Your task to perform on an android device: delete the emails in spam in the gmail app Image 0: 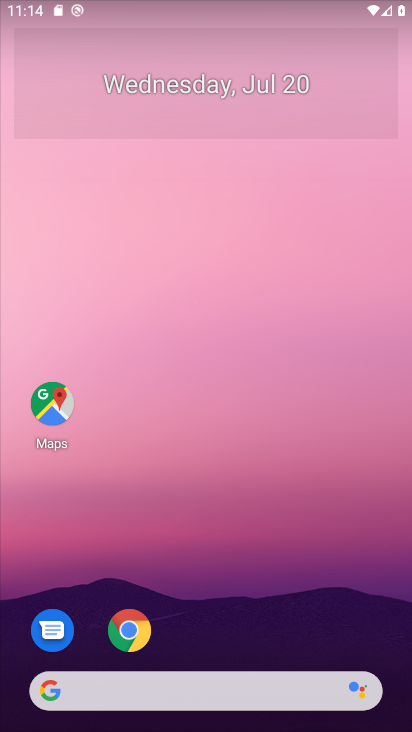
Step 0: drag from (238, 557) to (232, 289)
Your task to perform on an android device: delete the emails in spam in the gmail app Image 1: 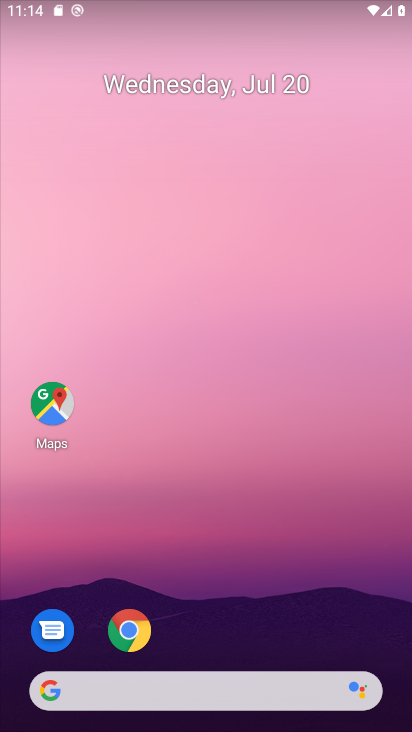
Step 1: drag from (269, 620) to (229, 261)
Your task to perform on an android device: delete the emails in spam in the gmail app Image 2: 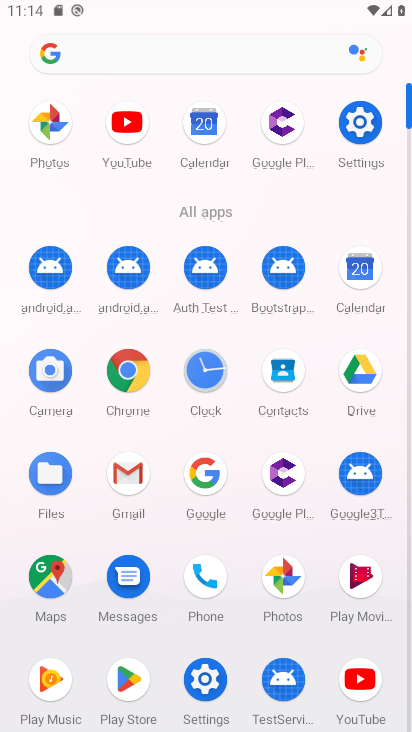
Step 2: click (126, 475)
Your task to perform on an android device: delete the emails in spam in the gmail app Image 3: 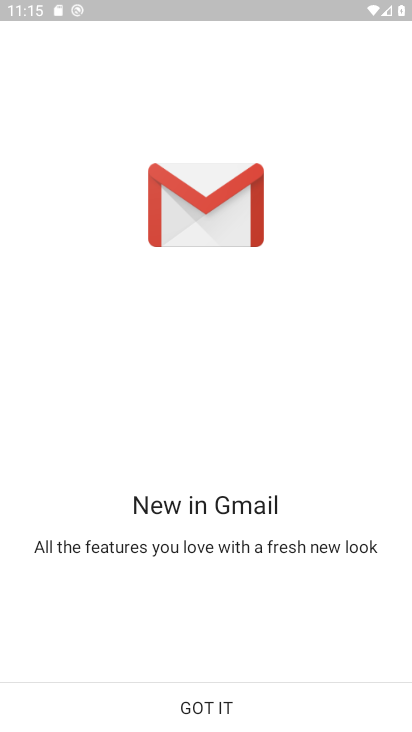
Step 3: click (221, 714)
Your task to perform on an android device: delete the emails in spam in the gmail app Image 4: 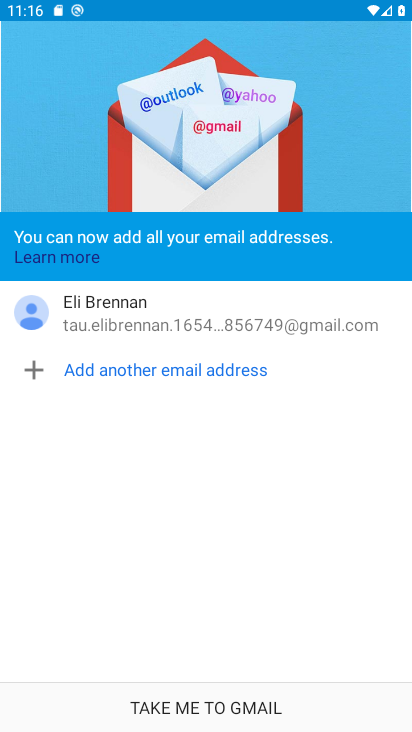
Step 4: click (221, 710)
Your task to perform on an android device: delete the emails in spam in the gmail app Image 5: 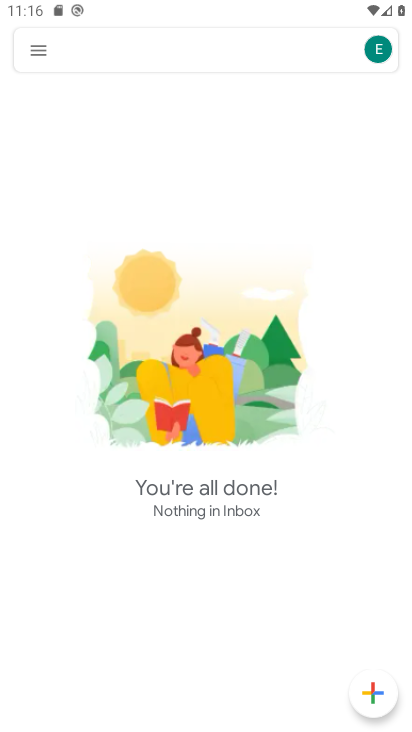
Step 5: task complete